Your task to perform on an android device: change the clock display to show seconds Image 0: 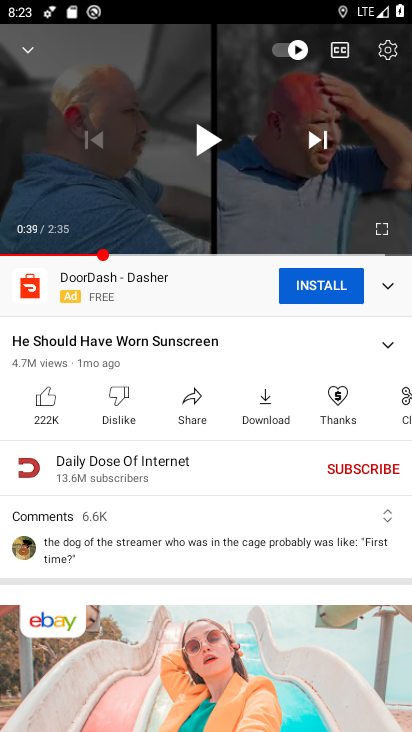
Step 0: press home button
Your task to perform on an android device: change the clock display to show seconds Image 1: 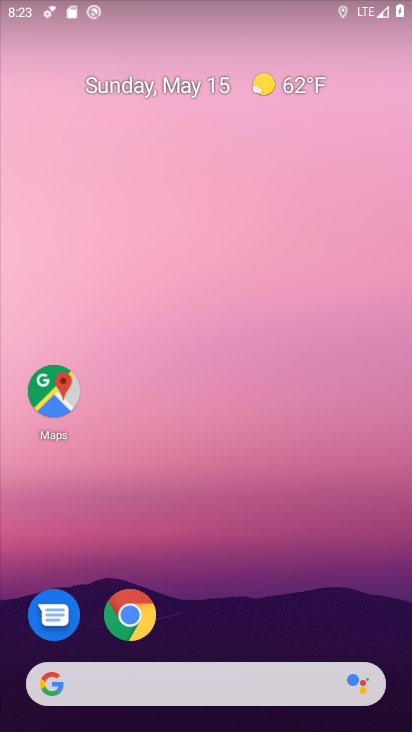
Step 1: drag from (225, 523) to (290, 122)
Your task to perform on an android device: change the clock display to show seconds Image 2: 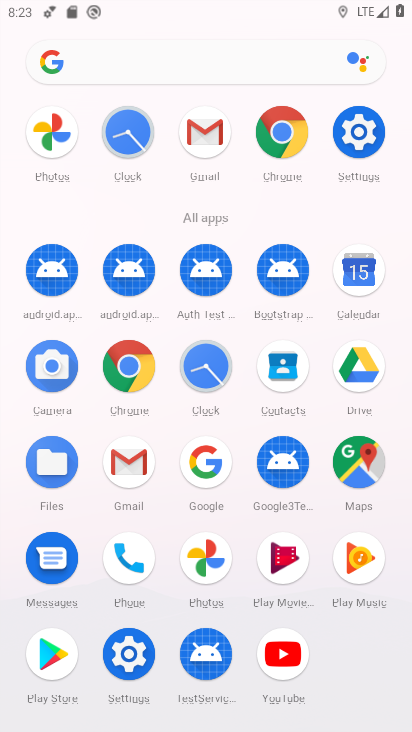
Step 2: click (206, 361)
Your task to perform on an android device: change the clock display to show seconds Image 3: 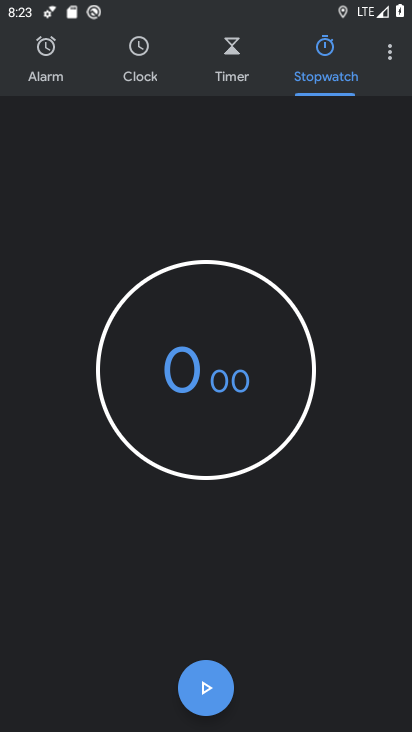
Step 3: click (391, 61)
Your task to perform on an android device: change the clock display to show seconds Image 4: 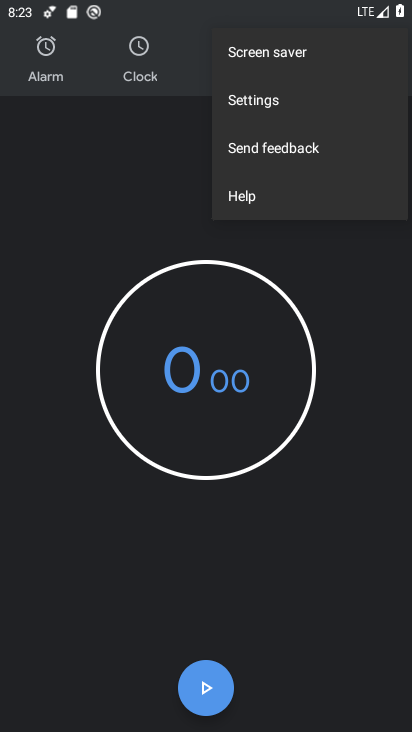
Step 4: click (266, 102)
Your task to perform on an android device: change the clock display to show seconds Image 5: 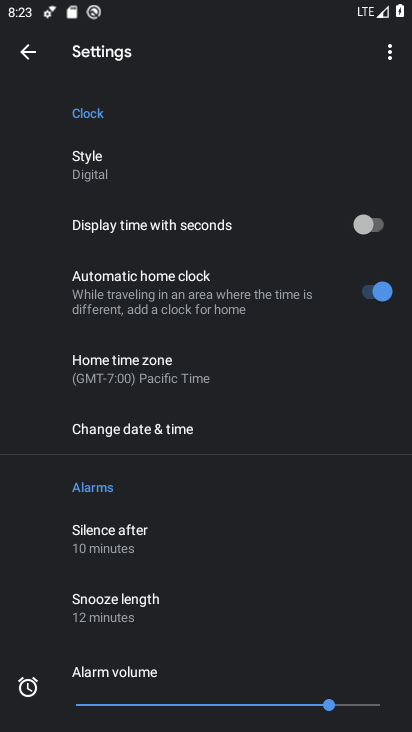
Step 5: click (364, 226)
Your task to perform on an android device: change the clock display to show seconds Image 6: 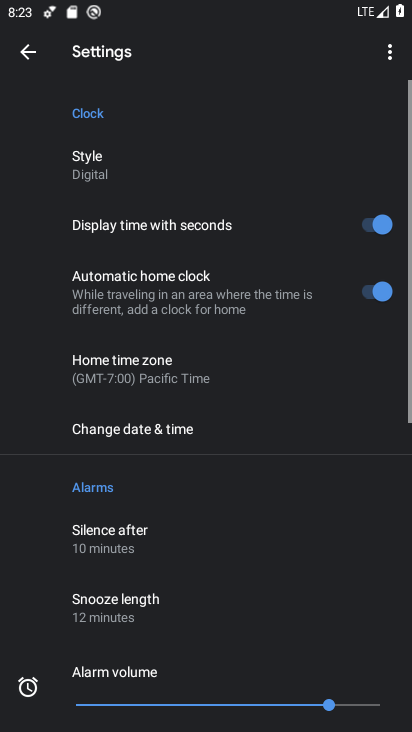
Step 6: task complete